Your task to perform on an android device: Add razer thresher to the cart on walmart.com Image 0: 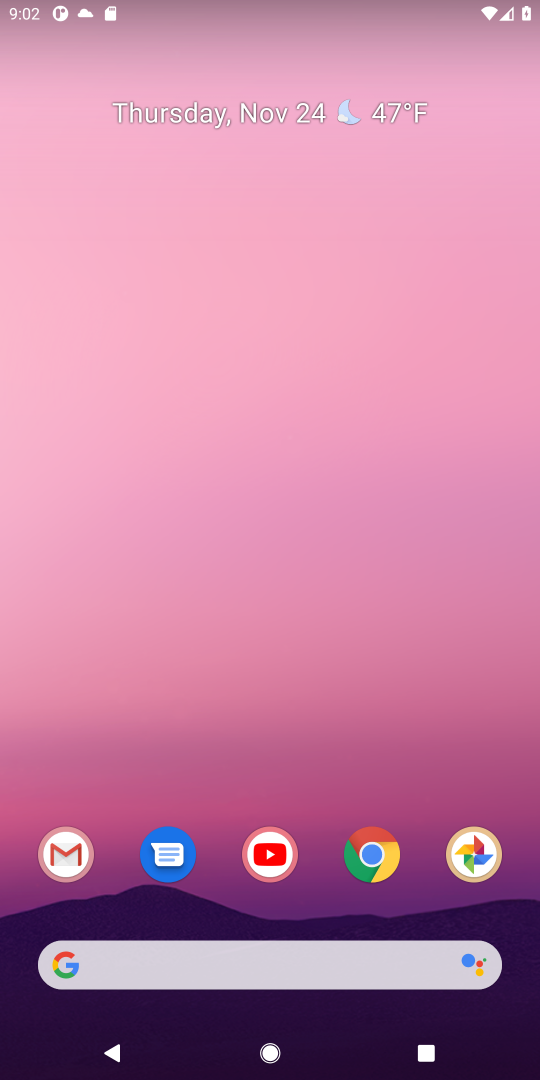
Step 0: click (368, 865)
Your task to perform on an android device: Add razer thresher to the cart on walmart.com Image 1: 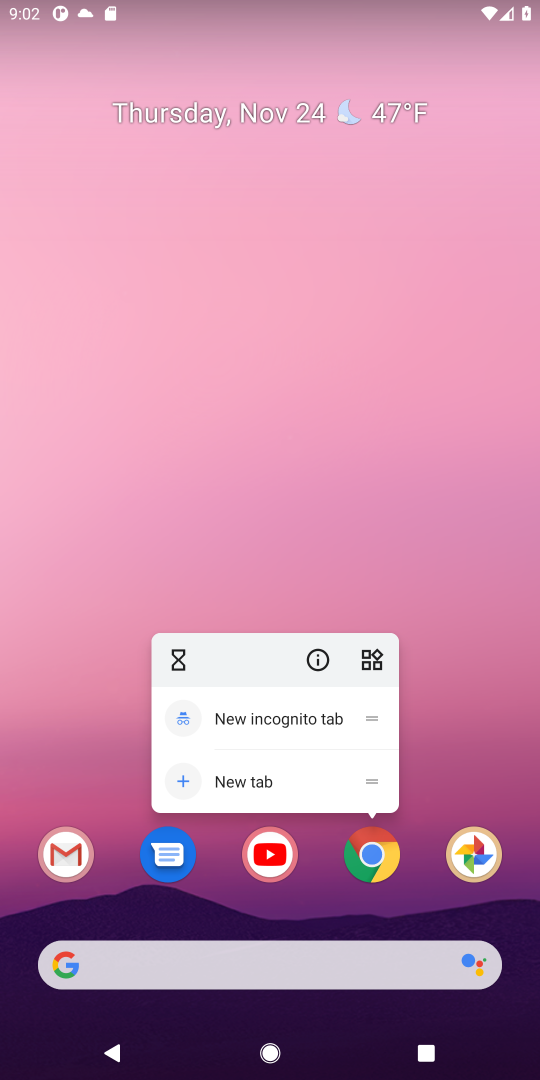
Step 1: click (375, 862)
Your task to perform on an android device: Add razer thresher to the cart on walmart.com Image 2: 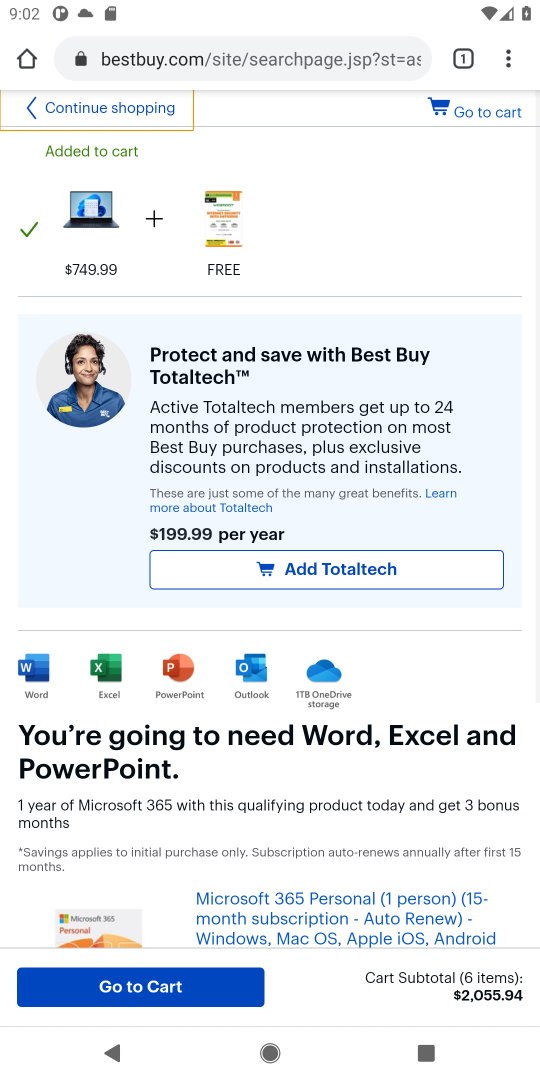
Step 2: click (198, 64)
Your task to perform on an android device: Add razer thresher to the cart on walmart.com Image 3: 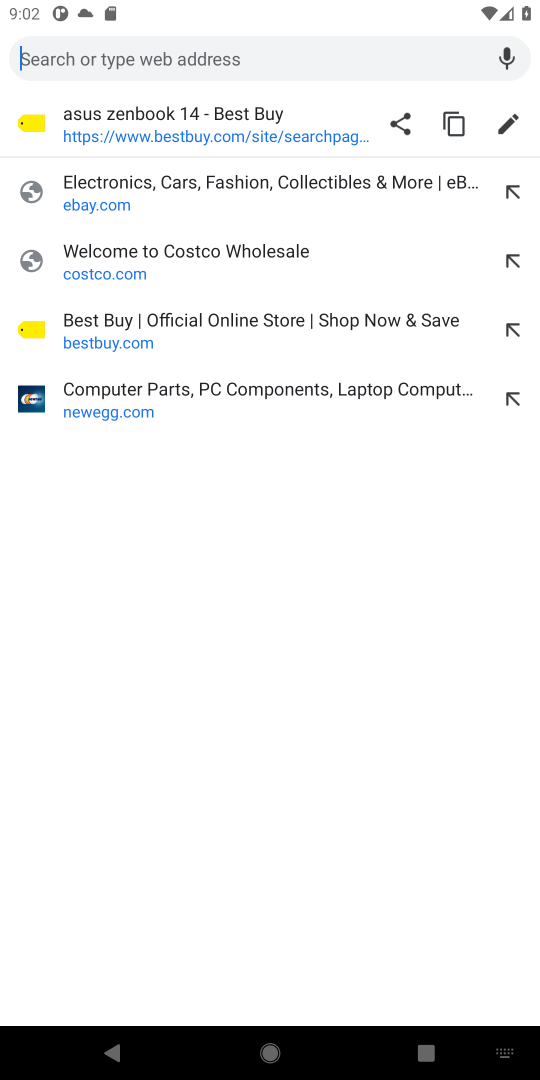
Step 3: type "walmart.com"
Your task to perform on an android device: Add razer thresher to the cart on walmart.com Image 4: 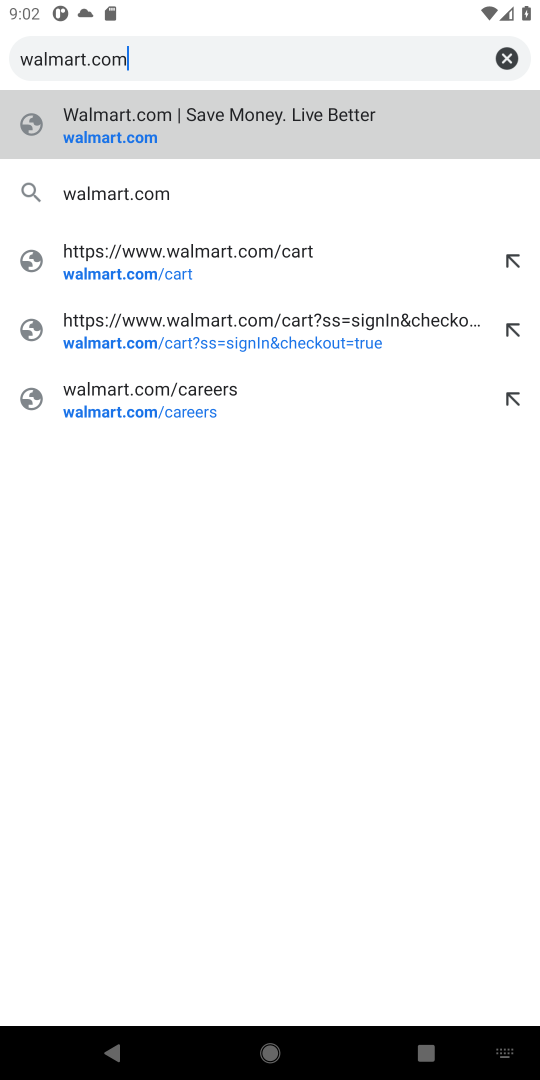
Step 4: click (109, 147)
Your task to perform on an android device: Add razer thresher to the cart on walmart.com Image 5: 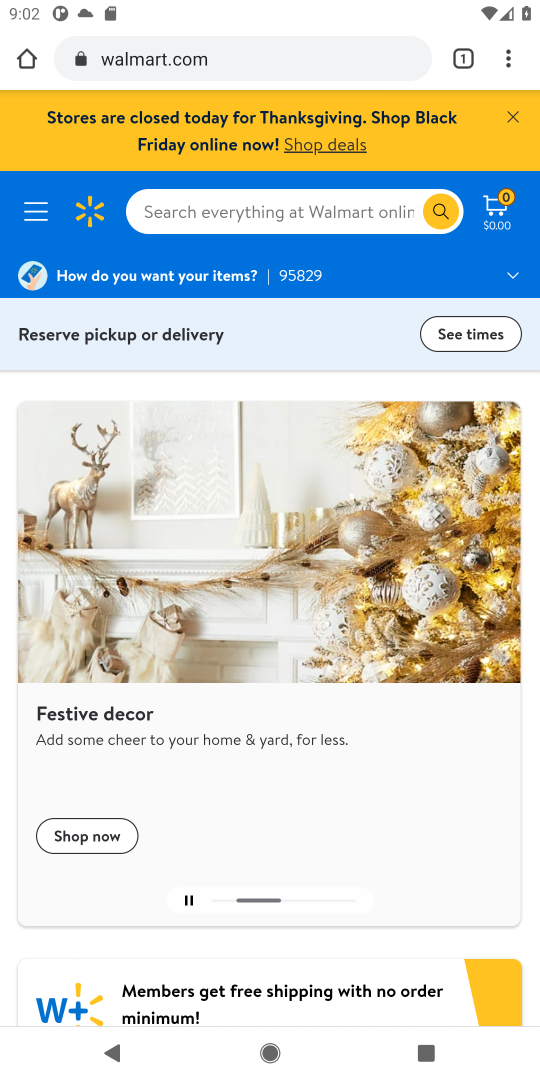
Step 5: click (222, 212)
Your task to perform on an android device: Add razer thresher to the cart on walmart.com Image 6: 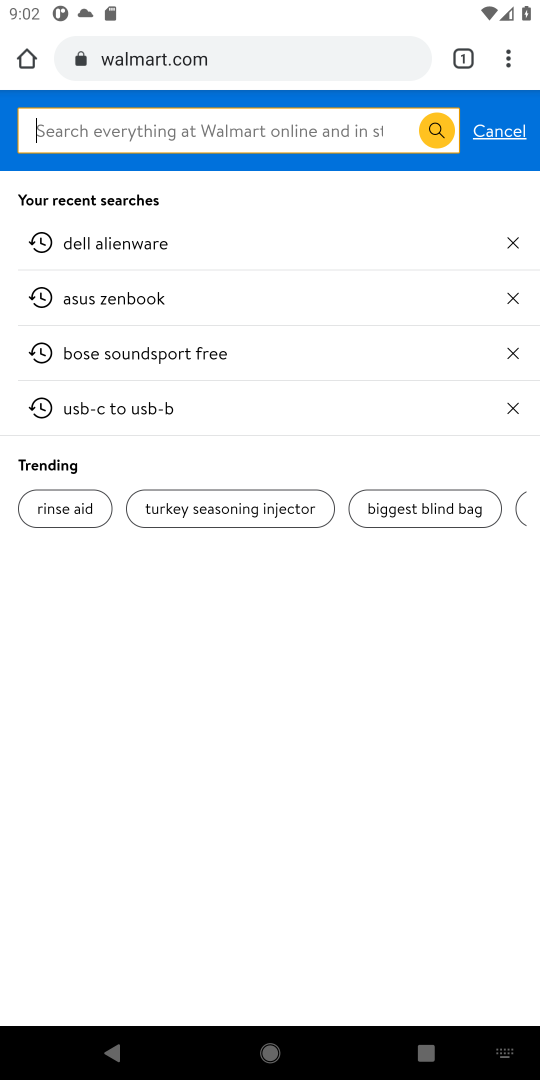
Step 6: type "razer thresher"
Your task to perform on an android device: Add razer thresher to the cart on walmart.com Image 7: 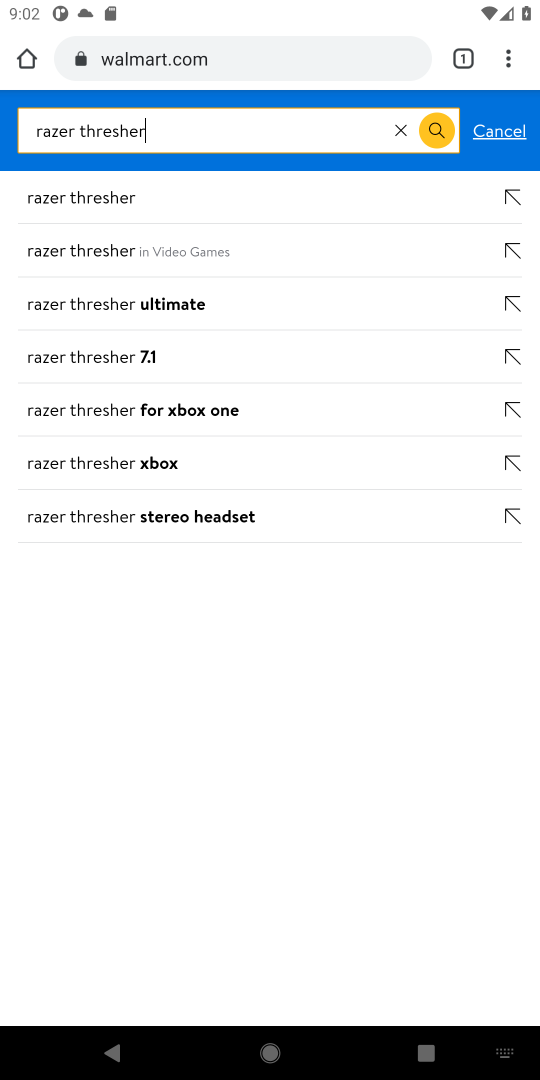
Step 7: click (92, 209)
Your task to perform on an android device: Add razer thresher to the cart on walmart.com Image 8: 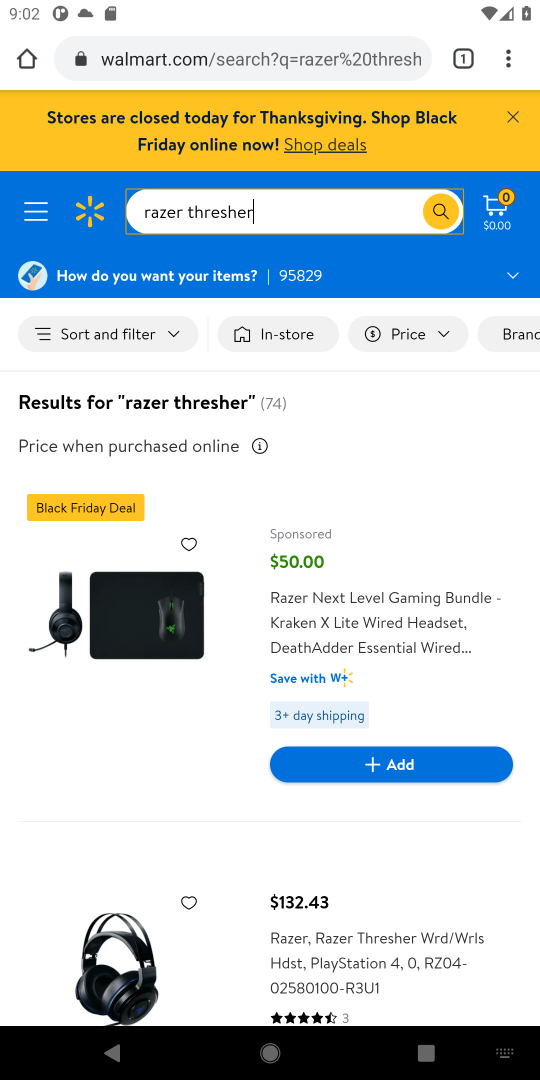
Step 8: drag from (158, 738) to (196, 433)
Your task to perform on an android device: Add razer thresher to the cart on walmart.com Image 9: 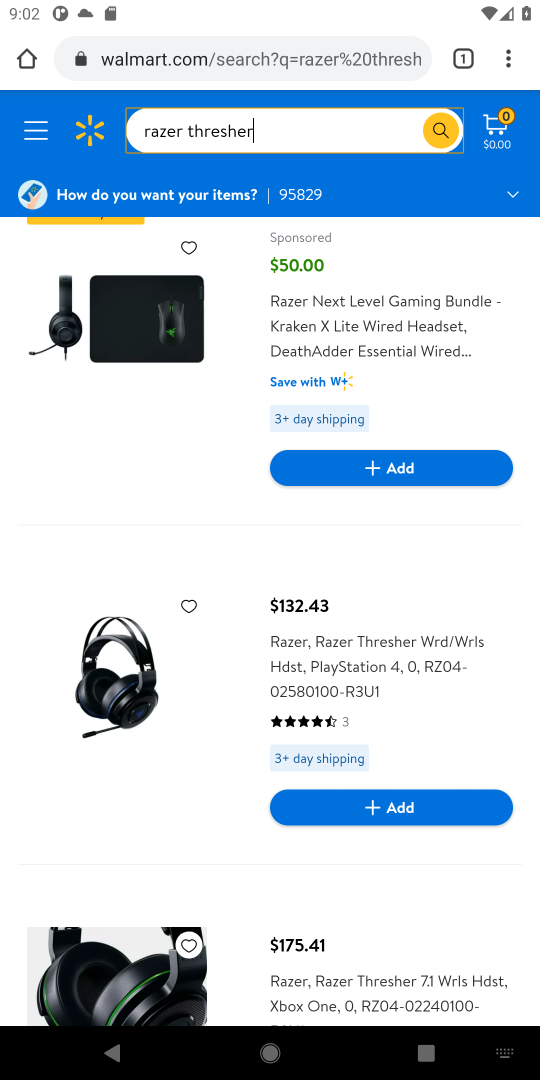
Step 9: click (389, 816)
Your task to perform on an android device: Add razer thresher to the cart on walmart.com Image 10: 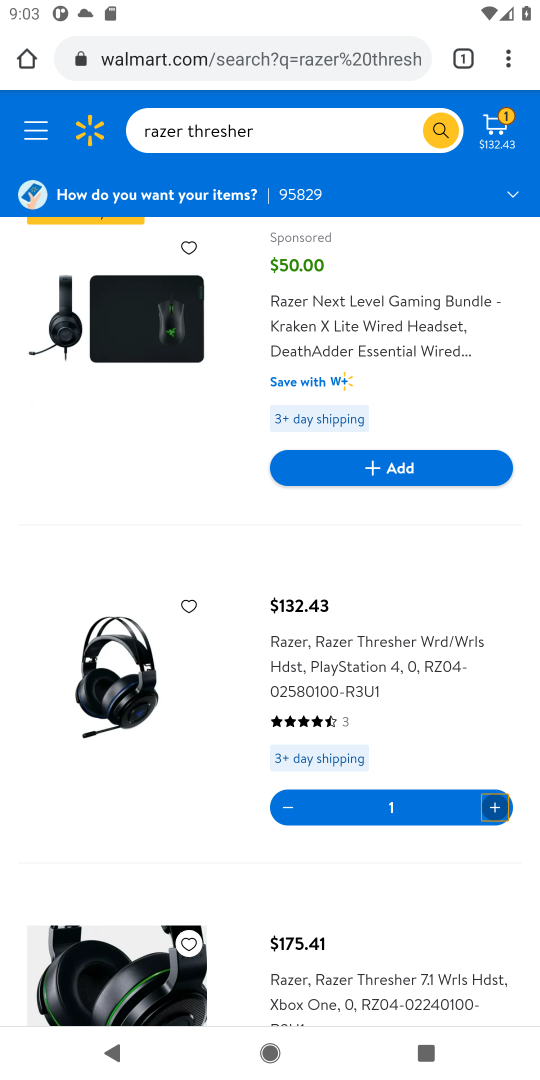
Step 10: task complete